Your task to perform on an android device: remove spam from my inbox in the gmail app Image 0: 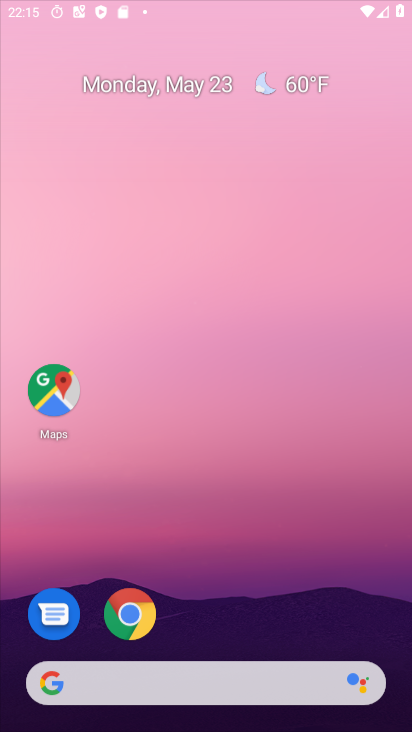
Step 0: drag from (209, 497) to (397, 151)
Your task to perform on an android device: remove spam from my inbox in the gmail app Image 1: 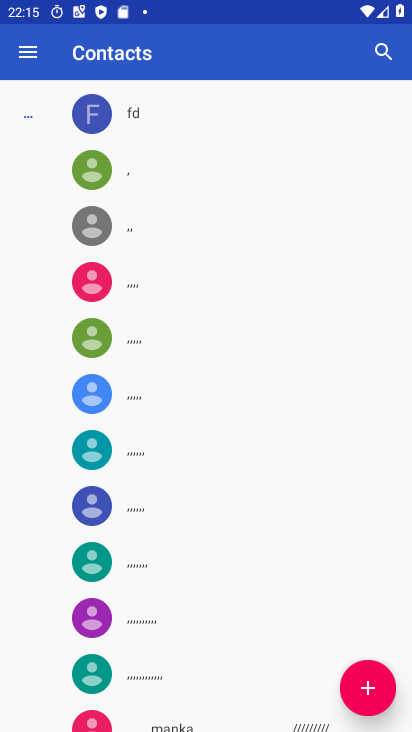
Step 1: press home button
Your task to perform on an android device: remove spam from my inbox in the gmail app Image 2: 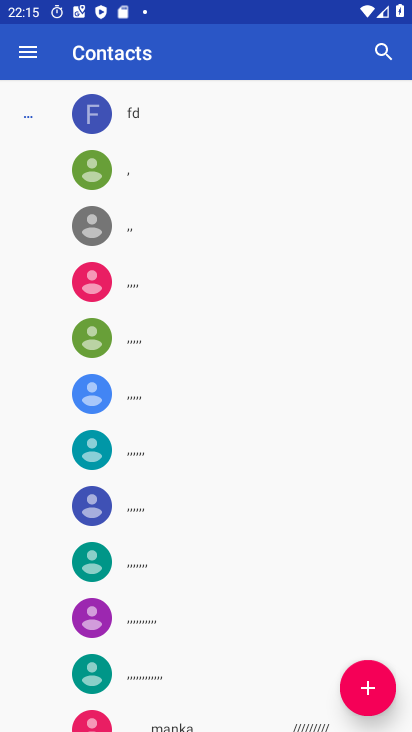
Step 2: click (409, 340)
Your task to perform on an android device: remove spam from my inbox in the gmail app Image 3: 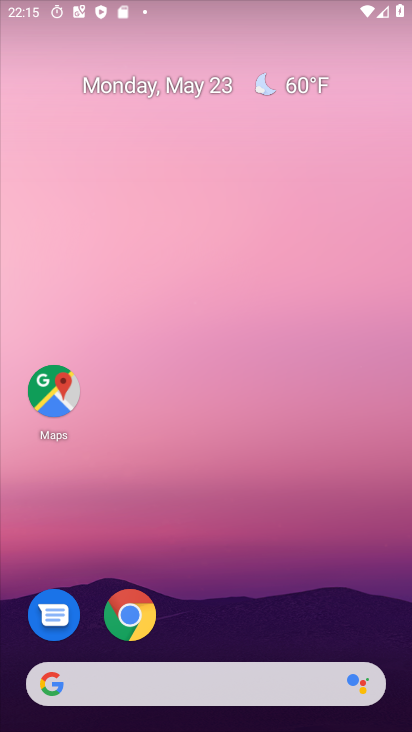
Step 3: drag from (251, 494) to (282, 115)
Your task to perform on an android device: remove spam from my inbox in the gmail app Image 4: 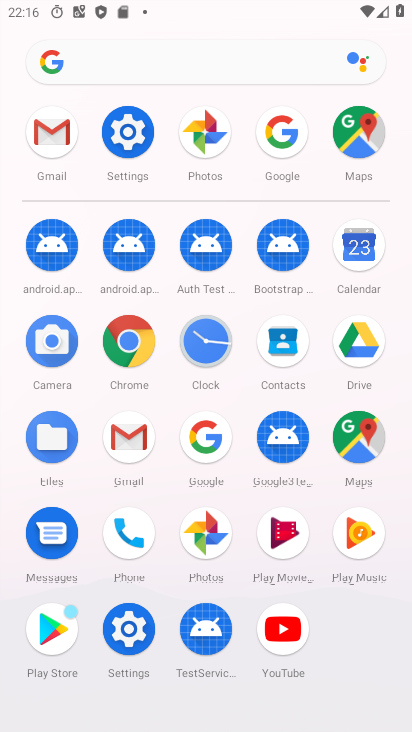
Step 4: click (53, 135)
Your task to perform on an android device: remove spam from my inbox in the gmail app Image 5: 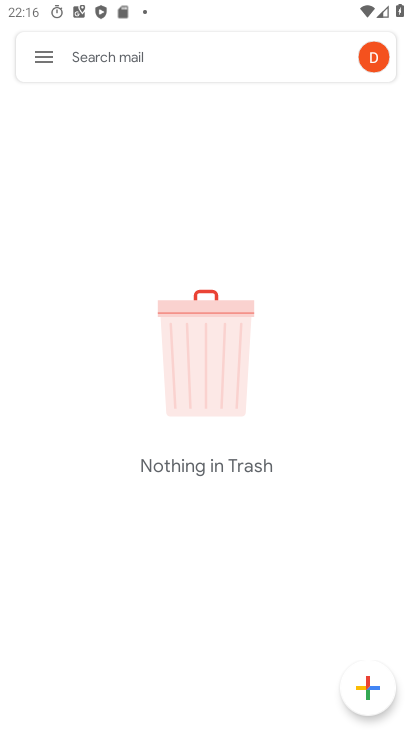
Step 5: click (37, 58)
Your task to perform on an android device: remove spam from my inbox in the gmail app Image 6: 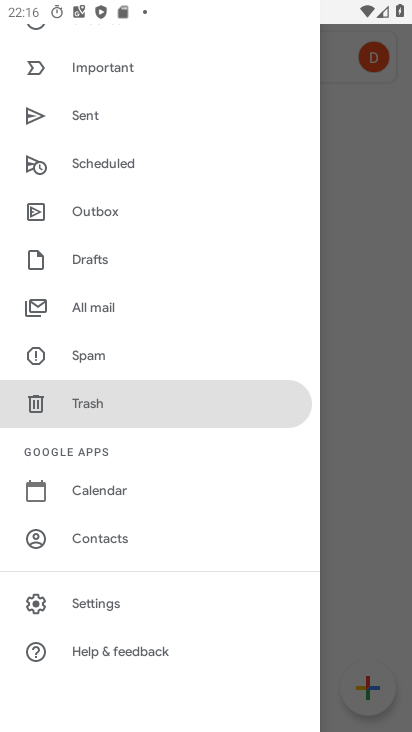
Step 6: task complete